Your task to perform on an android device: View the shopping cart on ebay.com. Add "alienware aurora" to the cart on ebay.com, then select checkout. Image 0: 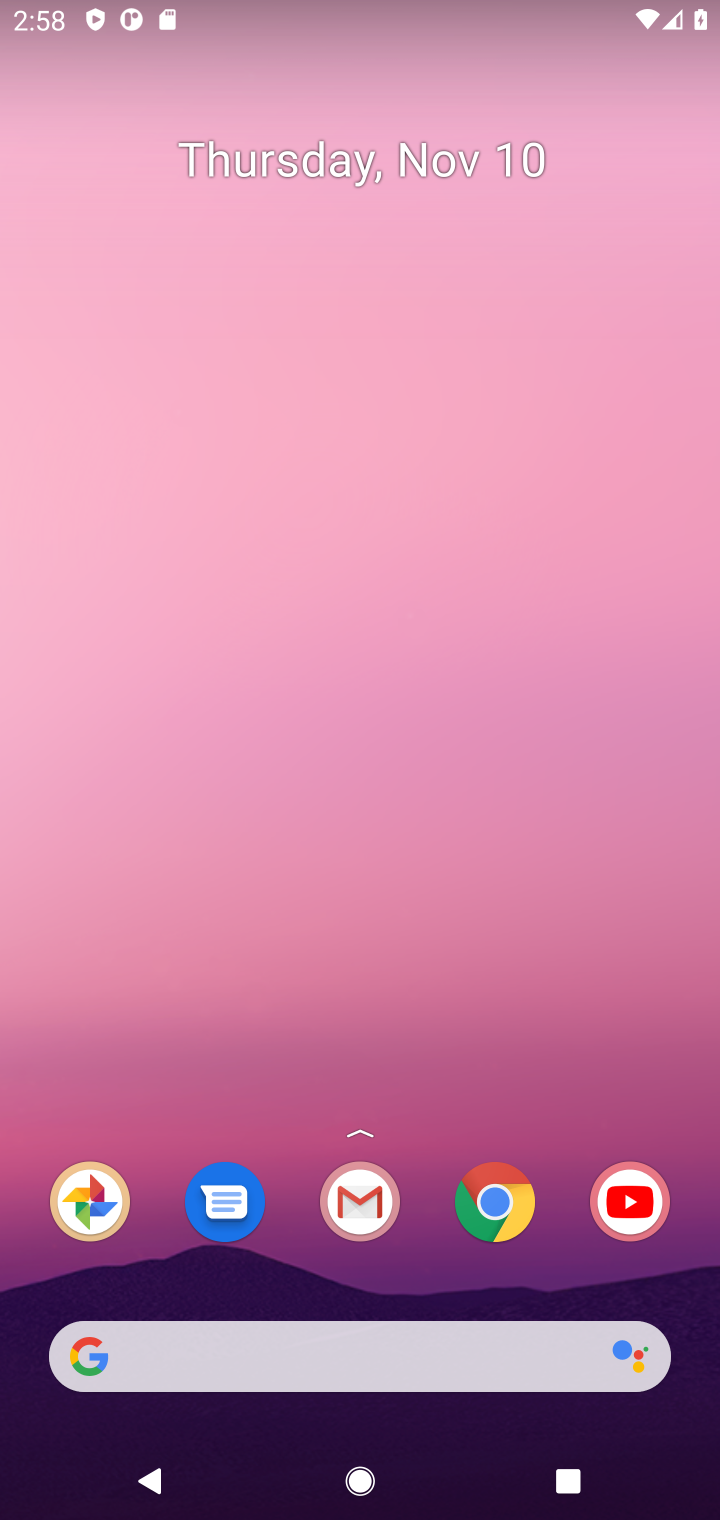
Step 0: press home button
Your task to perform on an android device: View the shopping cart on ebay.com. Add "alienware aurora" to the cart on ebay.com, then select checkout. Image 1: 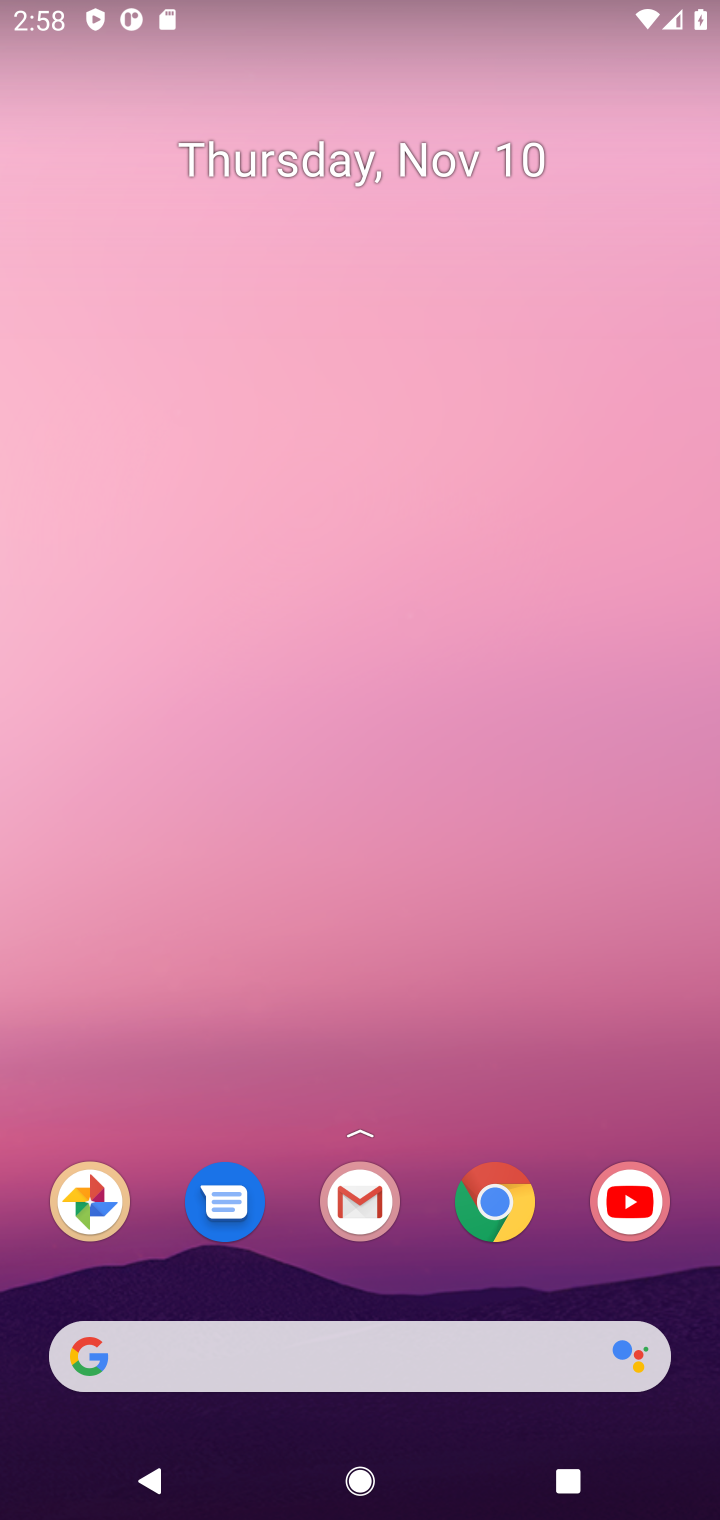
Step 1: click (492, 1193)
Your task to perform on an android device: View the shopping cart on ebay.com. Add "alienware aurora" to the cart on ebay.com, then select checkout. Image 2: 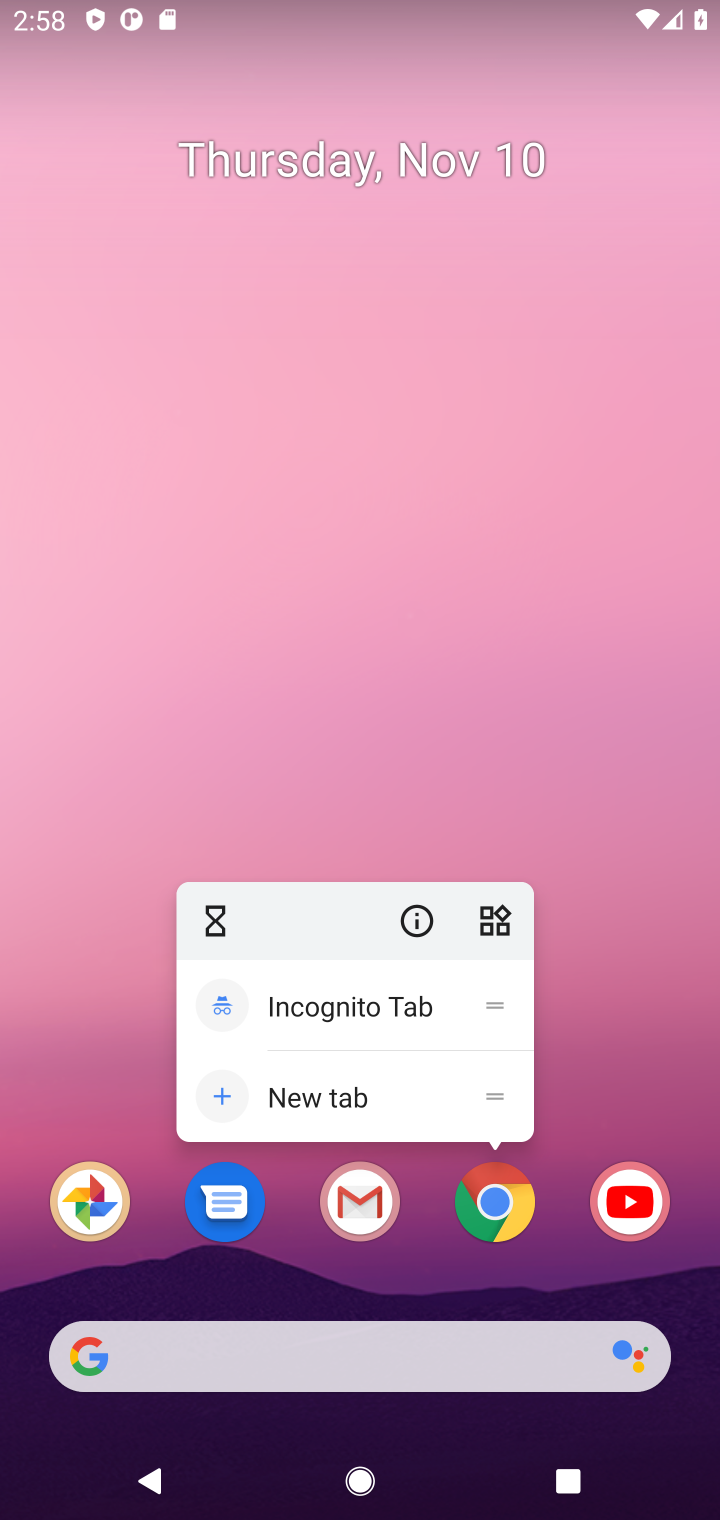
Step 2: click (497, 1212)
Your task to perform on an android device: View the shopping cart on ebay.com. Add "alienware aurora" to the cart on ebay.com, then select checkout. Image 3: 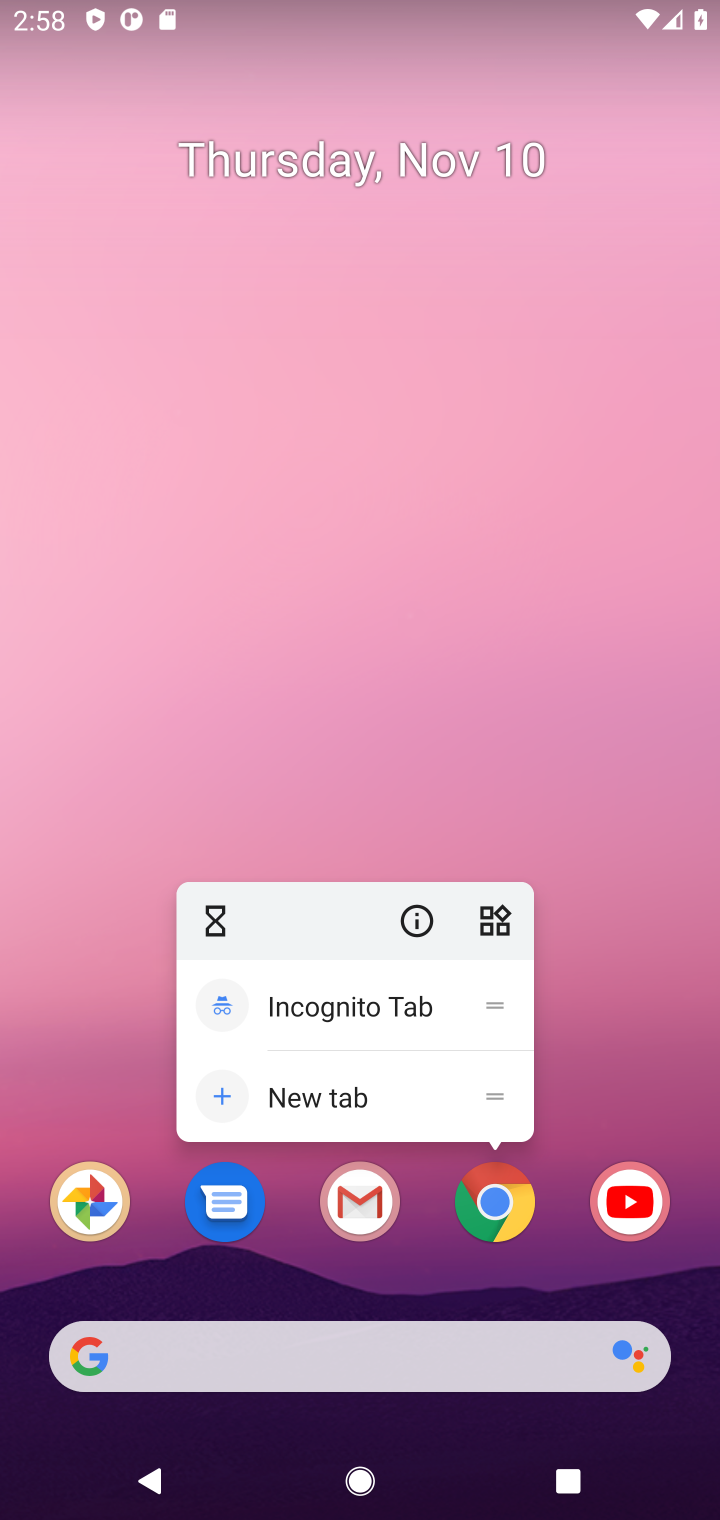
Step 3: click (497, 1212)
Your task to perform on an android device: View the shopping cart on ebay.com. Add "alienware aurora" to the cart on ebay.com, then select checkout. Image 4: 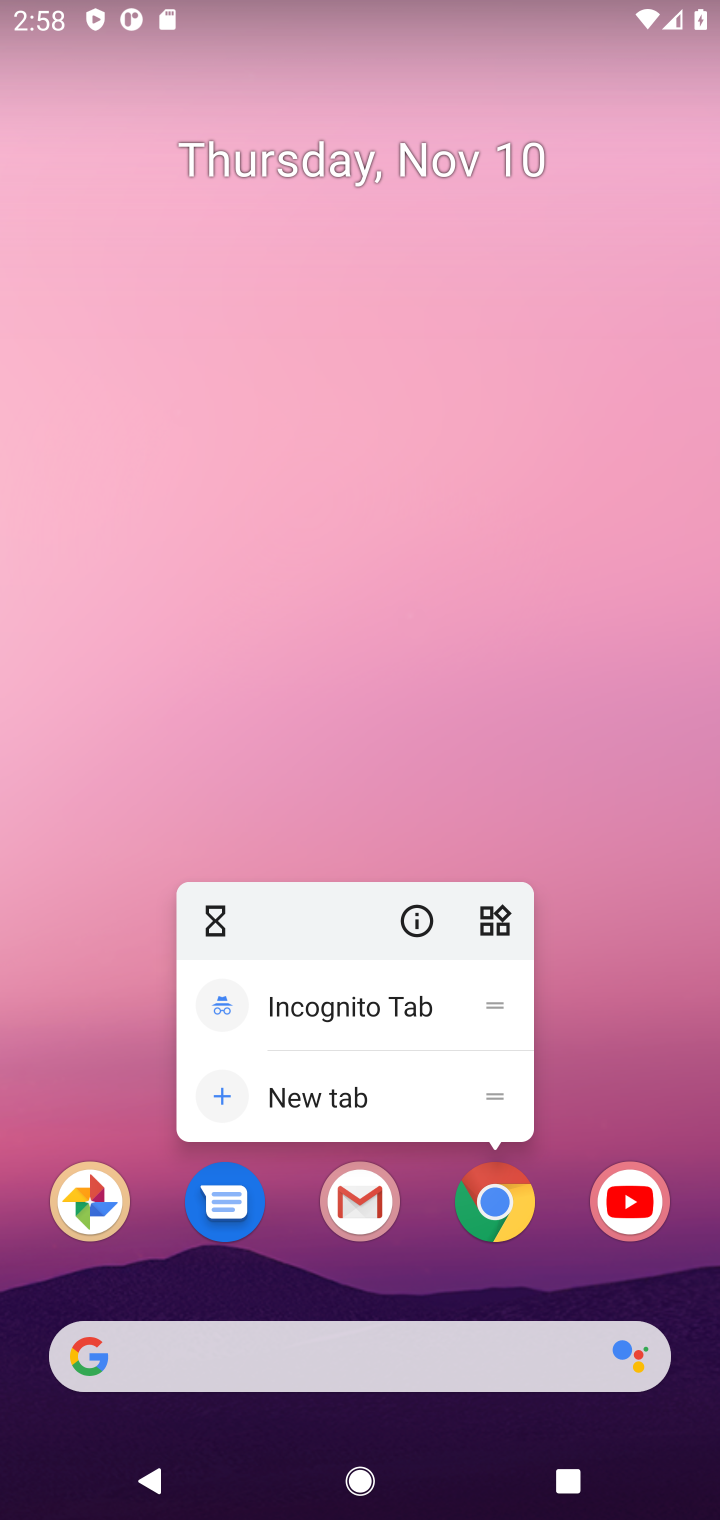
Step 4: click (497, 1212)
Your task to perform on an android device: View the shopping cart on ebay.com. Add "alienware aurora" to the cart on ebay.com, then select checkout. Image 5: 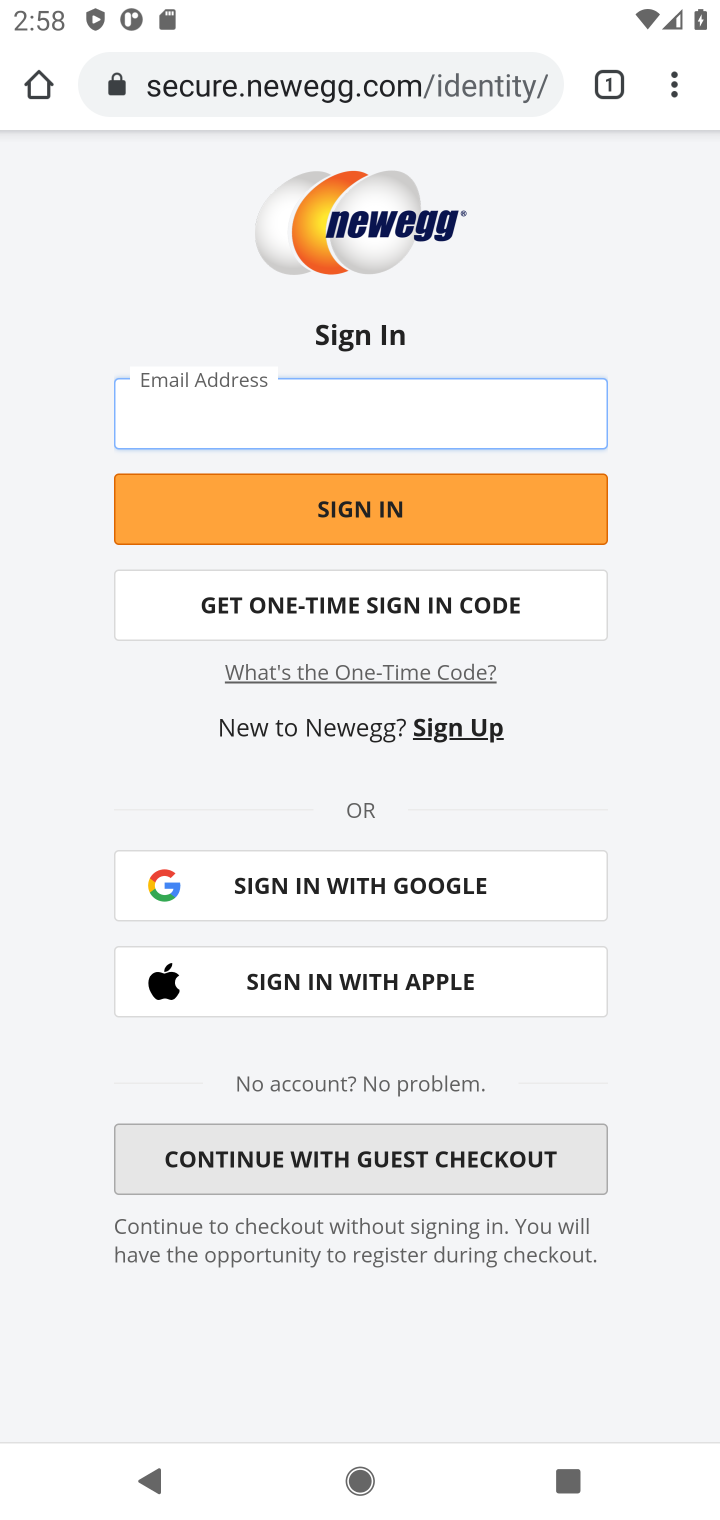
Step 5: click (372, 82)
Your task to perform on an android device: View the shopping cart on ebay.com. Add "alienware aurora" to the cart on ebay.com, then select checkout. Image 6: 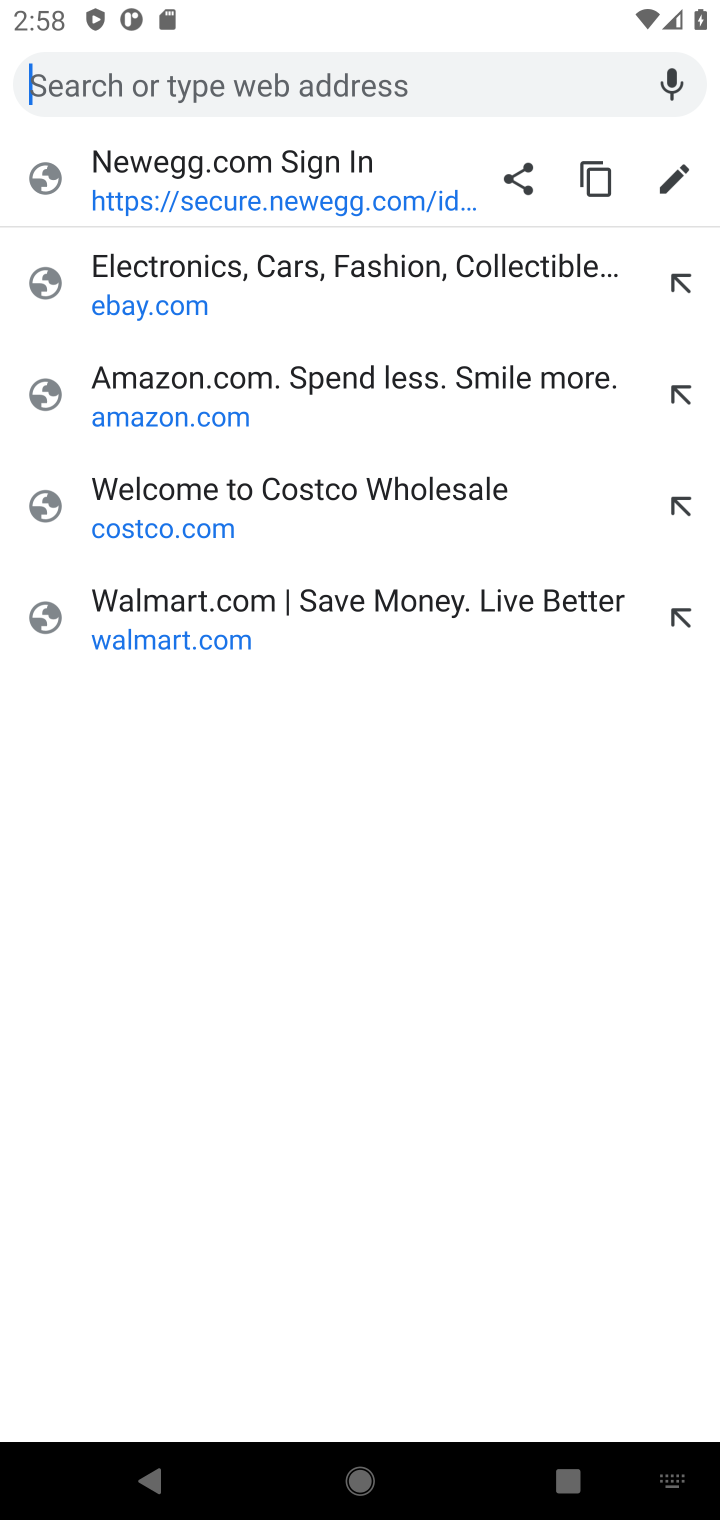
Step 6: click (246, 253)
Your task to perform on an android device: View the shopping cart on ebay.com. Add "alienware aurora" to the cart on ebay.com, then select checkout. Image 7: 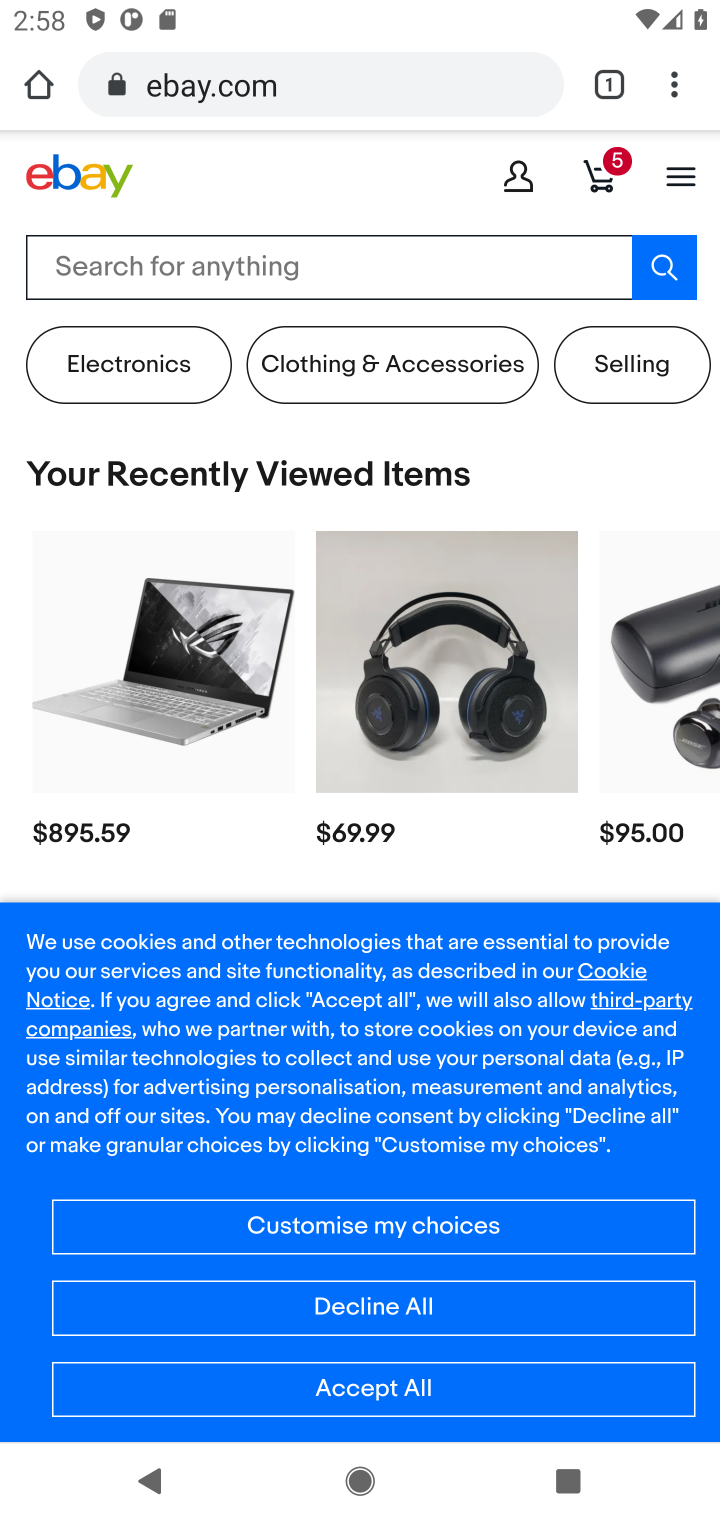
Step 7: click (359, 255)
Your task to perform on an android device: View the shopping cart on ebay.com. Add "alienware aurora" to the cart on ebay.com, then select checkout. Image 8: 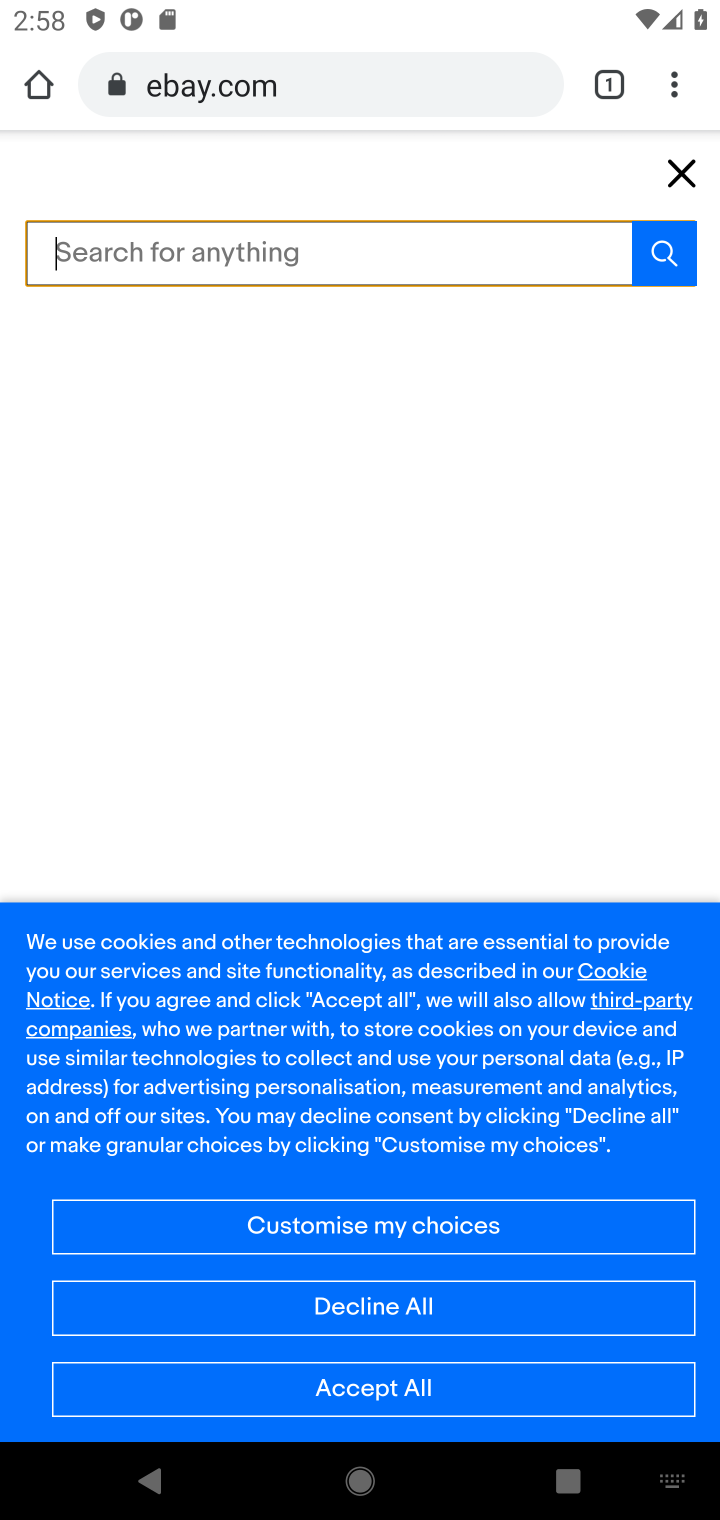
Step 8: type "alienware aurora"
Your task to perform on an android device: View the shopping cart on ebay.com. Add "alienware aurora" to the cart on ebay.com, then select checkout. Image 9: 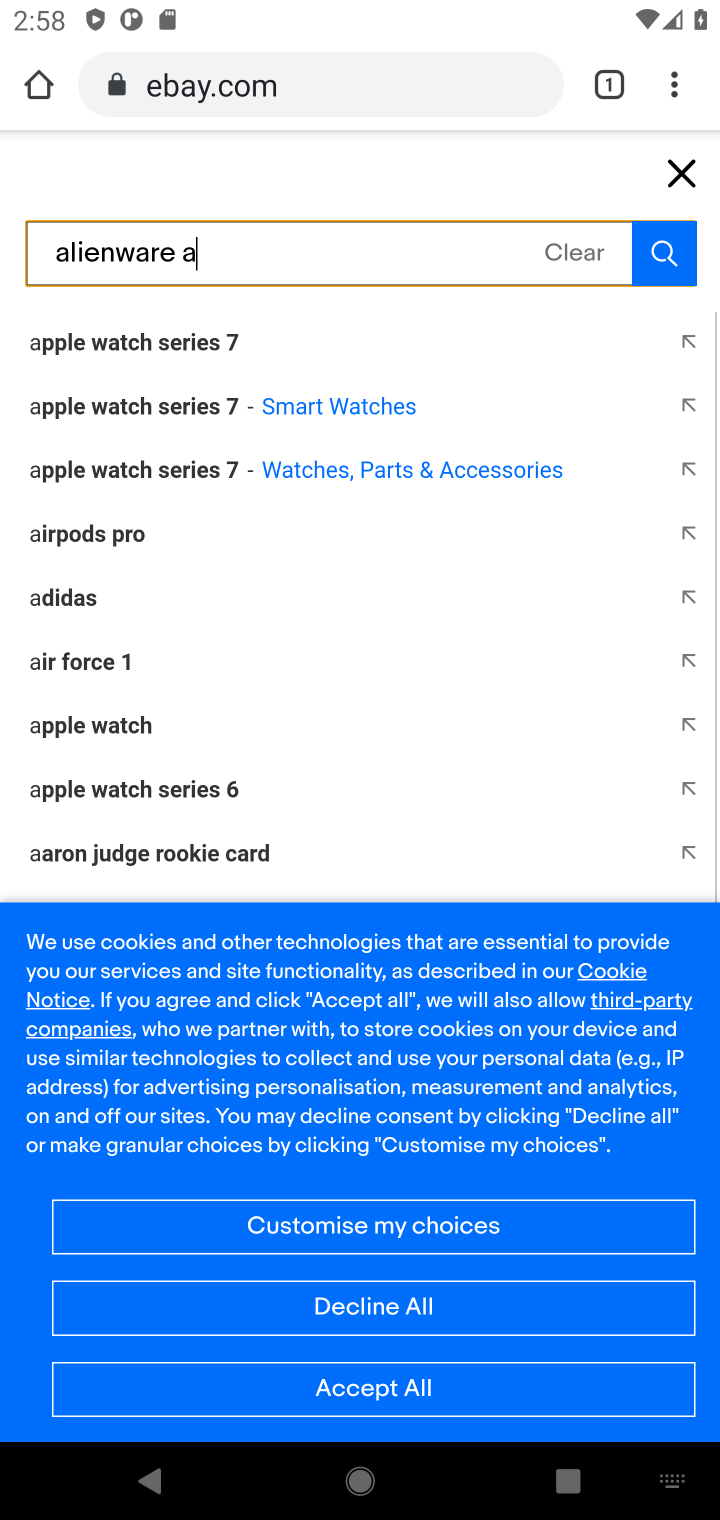
Step 9: press enter
Your task to perform on an android device: View the shopping cart on ebay.com. Add "alienware aurora" to the cart on ebay.com, then select checkout. Image 10: 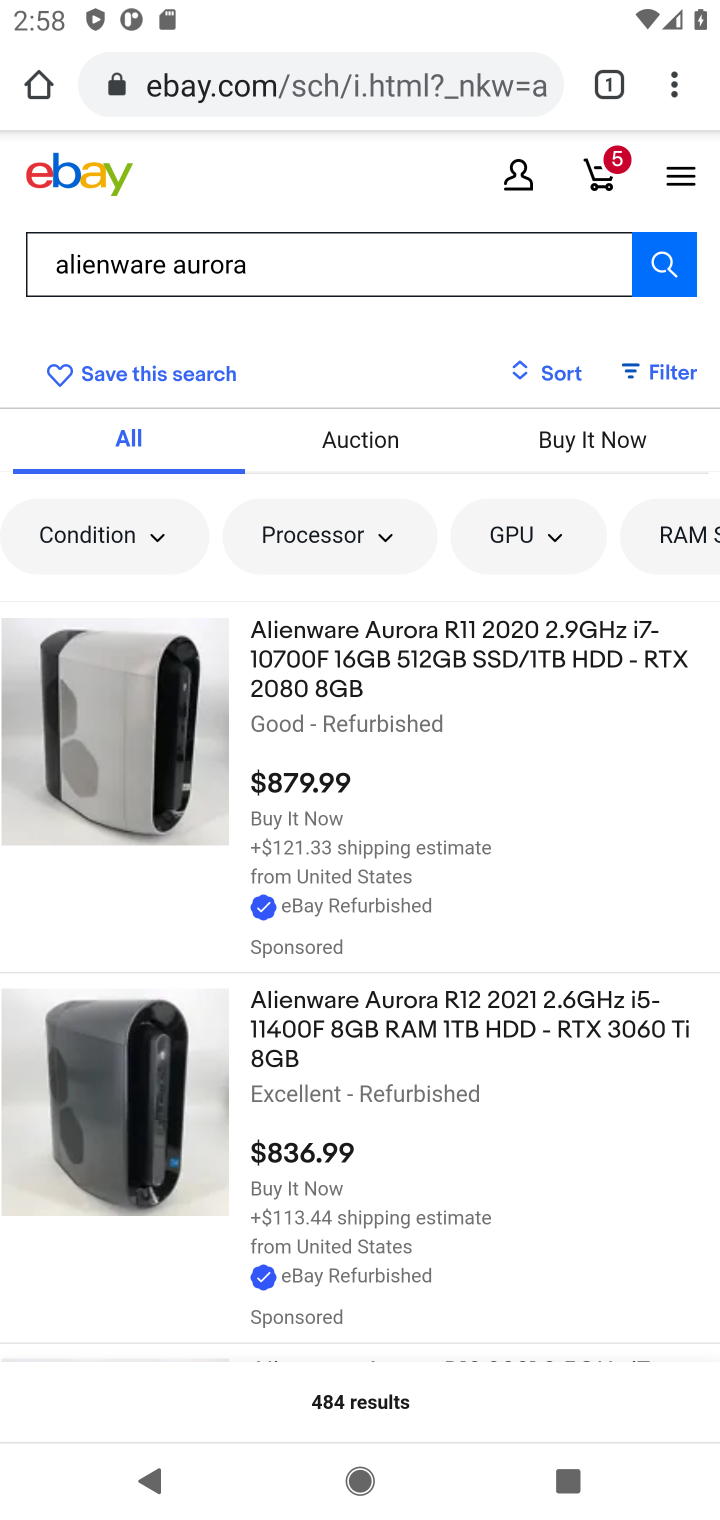
Step 10: click (119, 708)
Your task to perform on an android device: View the shopping cart on ebay.com. Add "alienware aurora" to the cart on ebay.com, then select checkout. Image 11: 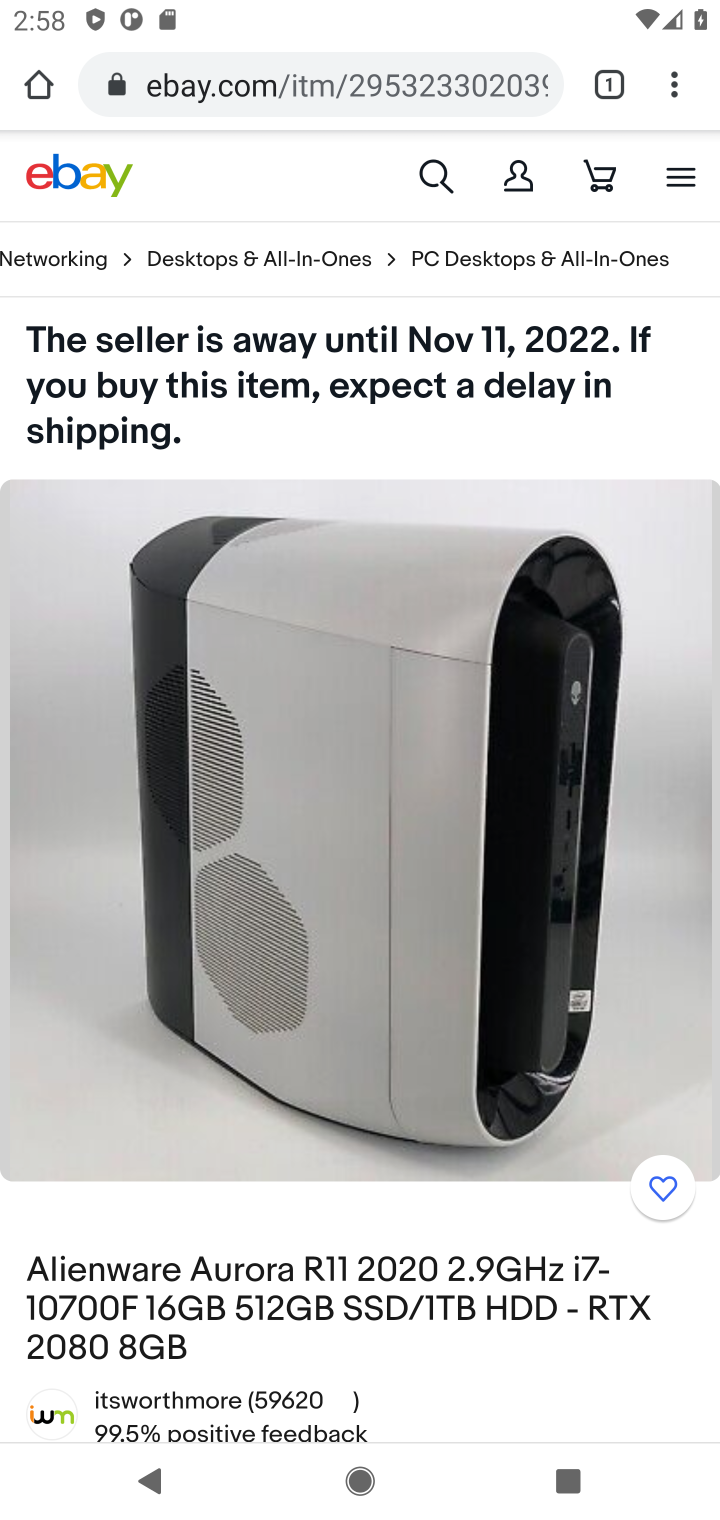
Step 11: drag from (482, 1305) to (466, 491)
Your task to perform on an android device: View the shopping cart on ebay.com. Add "alienware aurora" to the cart on ebay.com, then select checkout. Image 12: 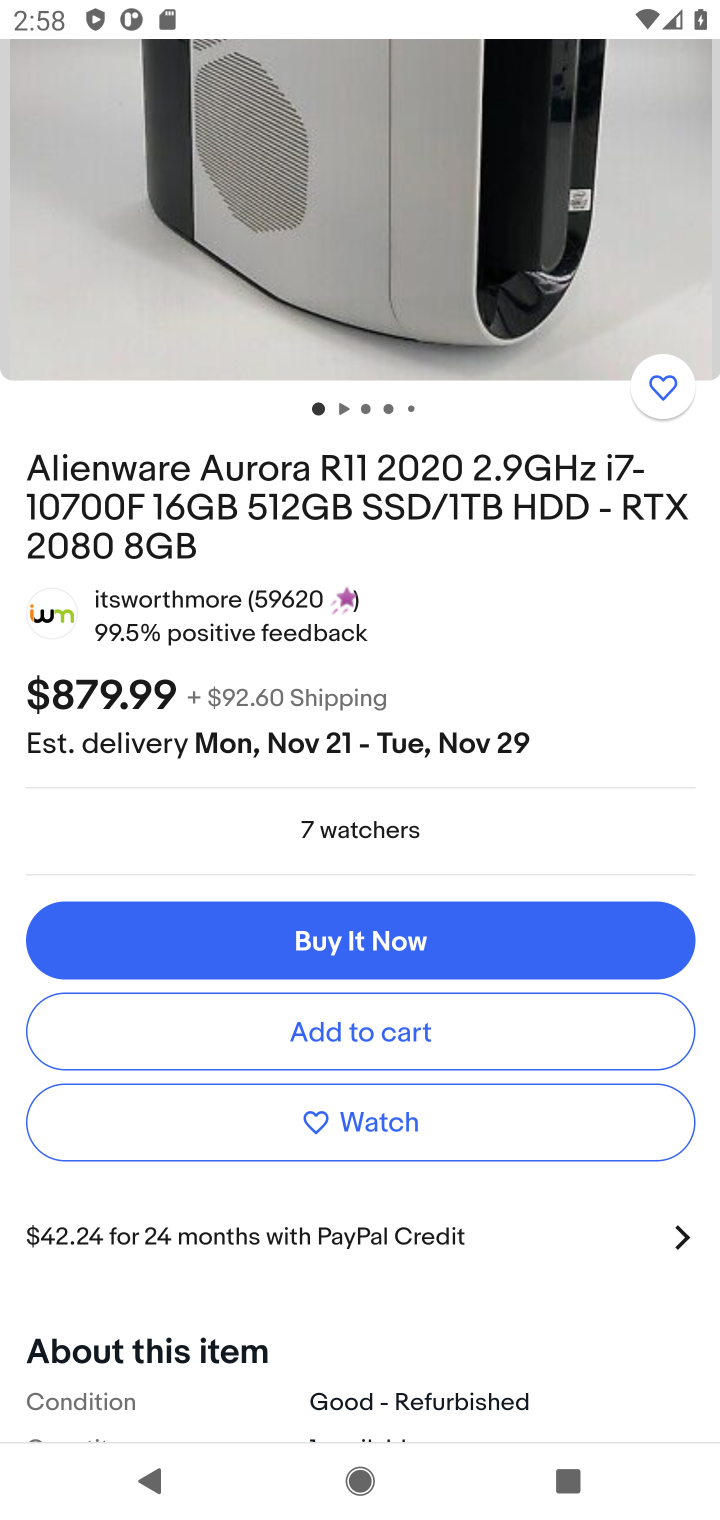
Step 12: click (348, 1036)
Your task to perform on an android device: View the shopping cart on ebay.com. Add "alienware aurora" to the cart on ebay.com, then select checkout. Image 13: 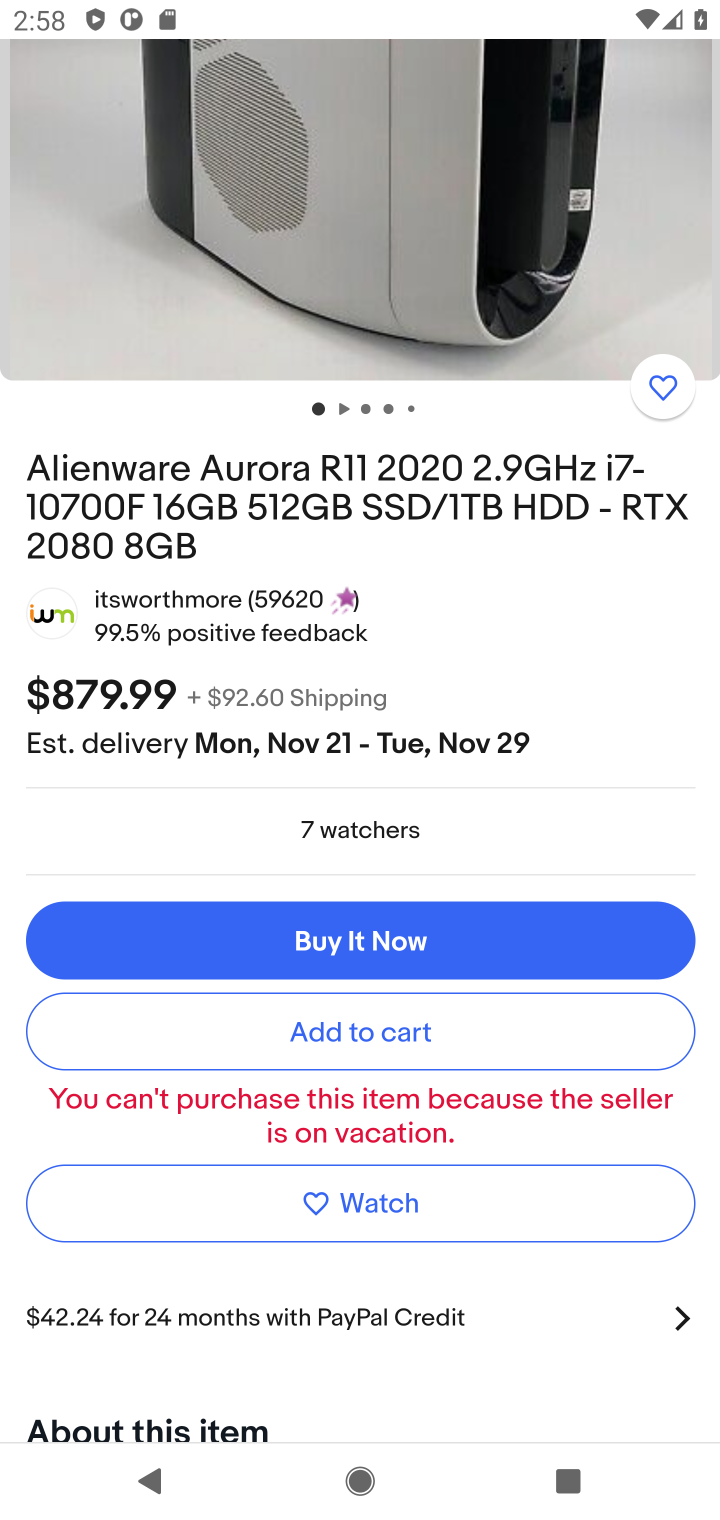
Step 13: press back button
Your task to perform on an android device: View the shopping cart on ebay.com. Add "alienware aurora" to the cart on ebay.com, then select checkout. Image 14: 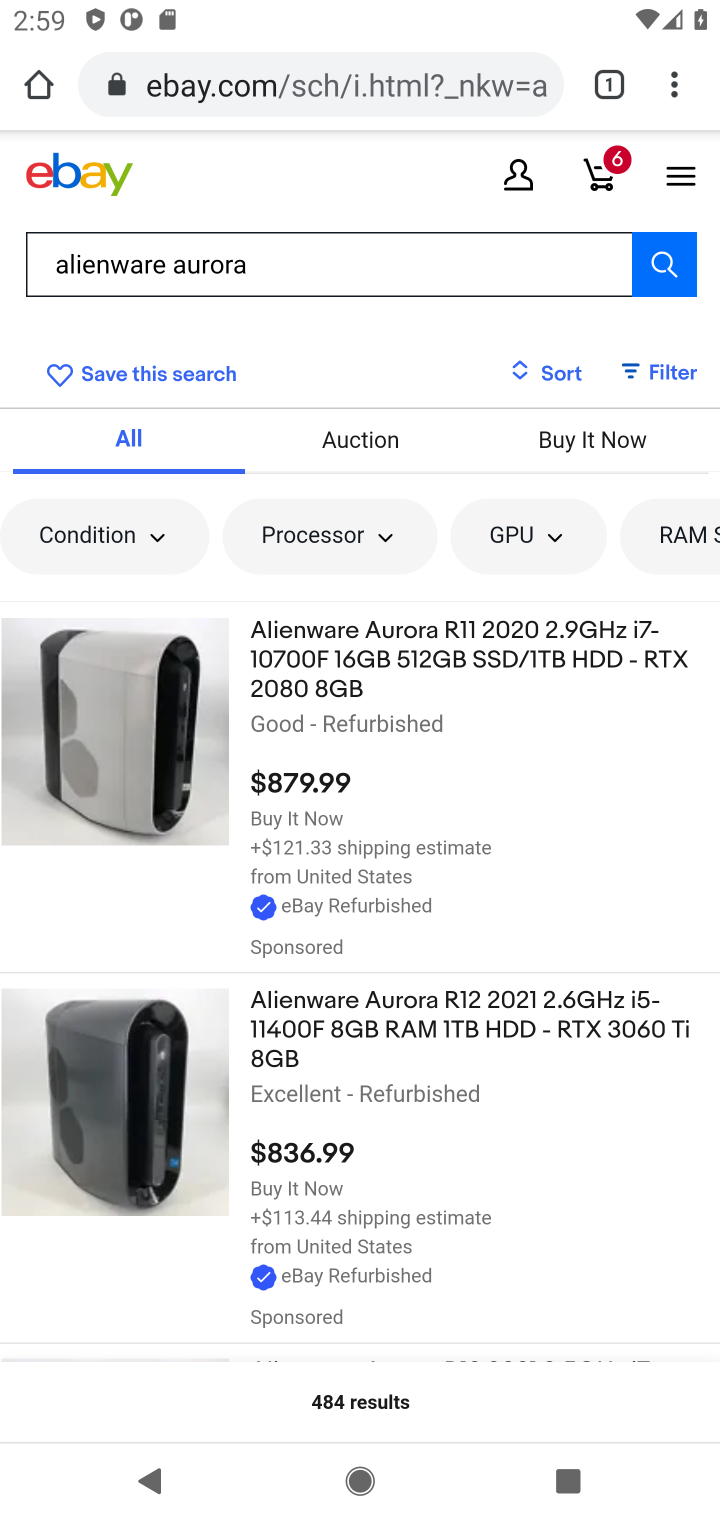
Step 14: click (83, 1056)
Your task to perform on an android device: View the shopping cart on ebay.com. Add "alienware aurora" to the cart on ebay.com, then select checkout. Image 15: 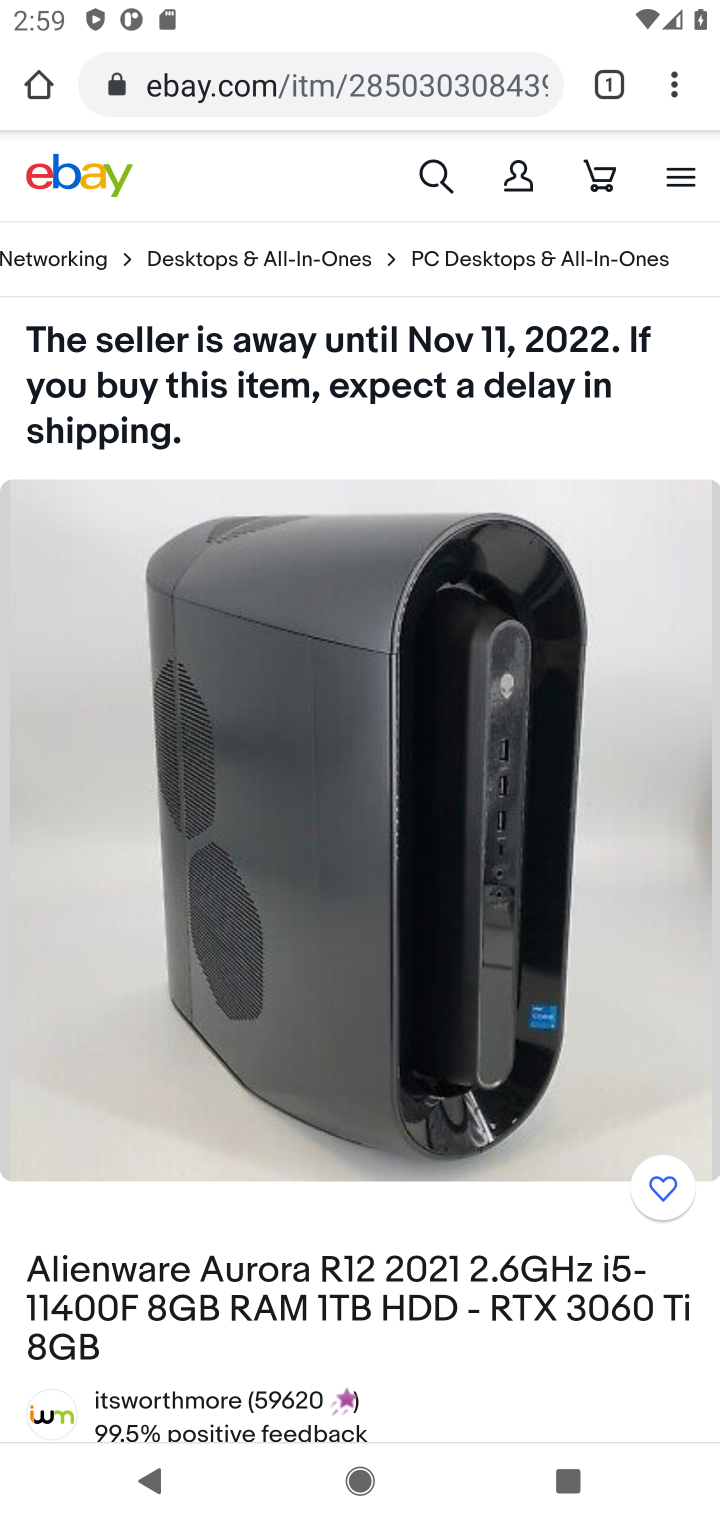
Step 15: drag from (478, 1137) to (384, 406)
Your task to perform on an android device: View the shopping cart on ebay.com. Add "alienware aurora" to the cart on ebay.com, then select checkout. Image 16: 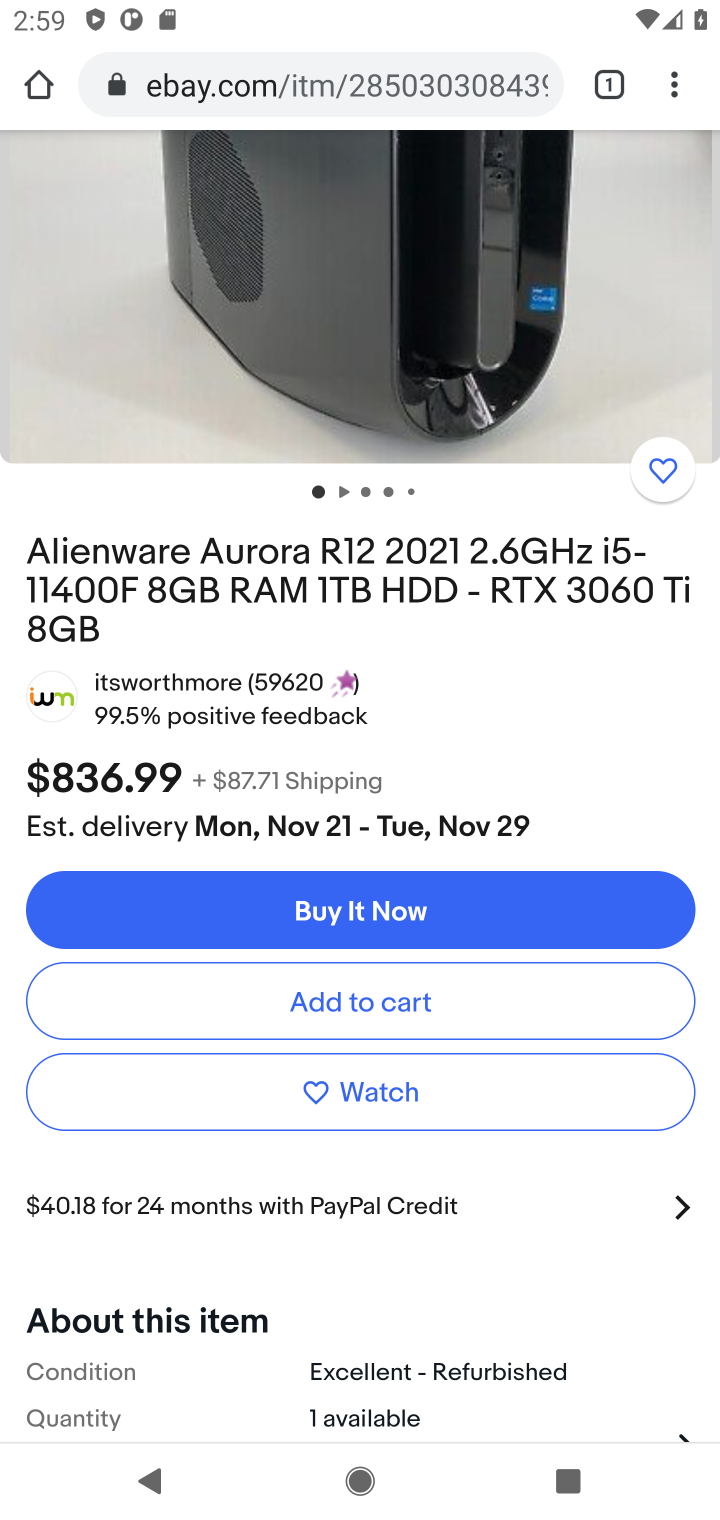
Step 16: click (384, 997)
Your task to perform on an android device: View the shopping cart on ebay.com. Add "alienware aurora" to the cart on ebay.com, then select checkout. Image 17: 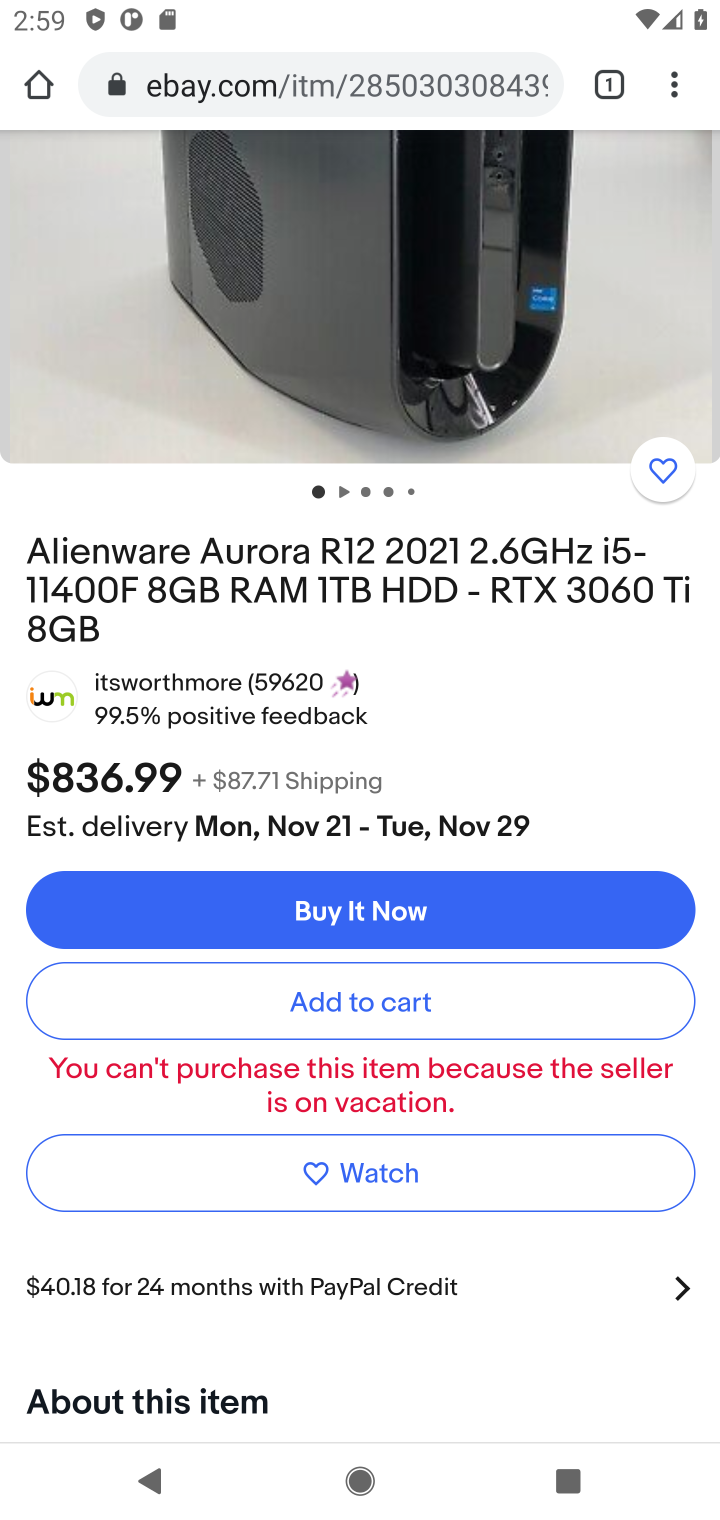
Step 17: press back button
Your task to perform on an android device: View the shopping cart on ebay.com. Add "alienware aurora" to the cart on ebay.com, then select checkout. Image 18: 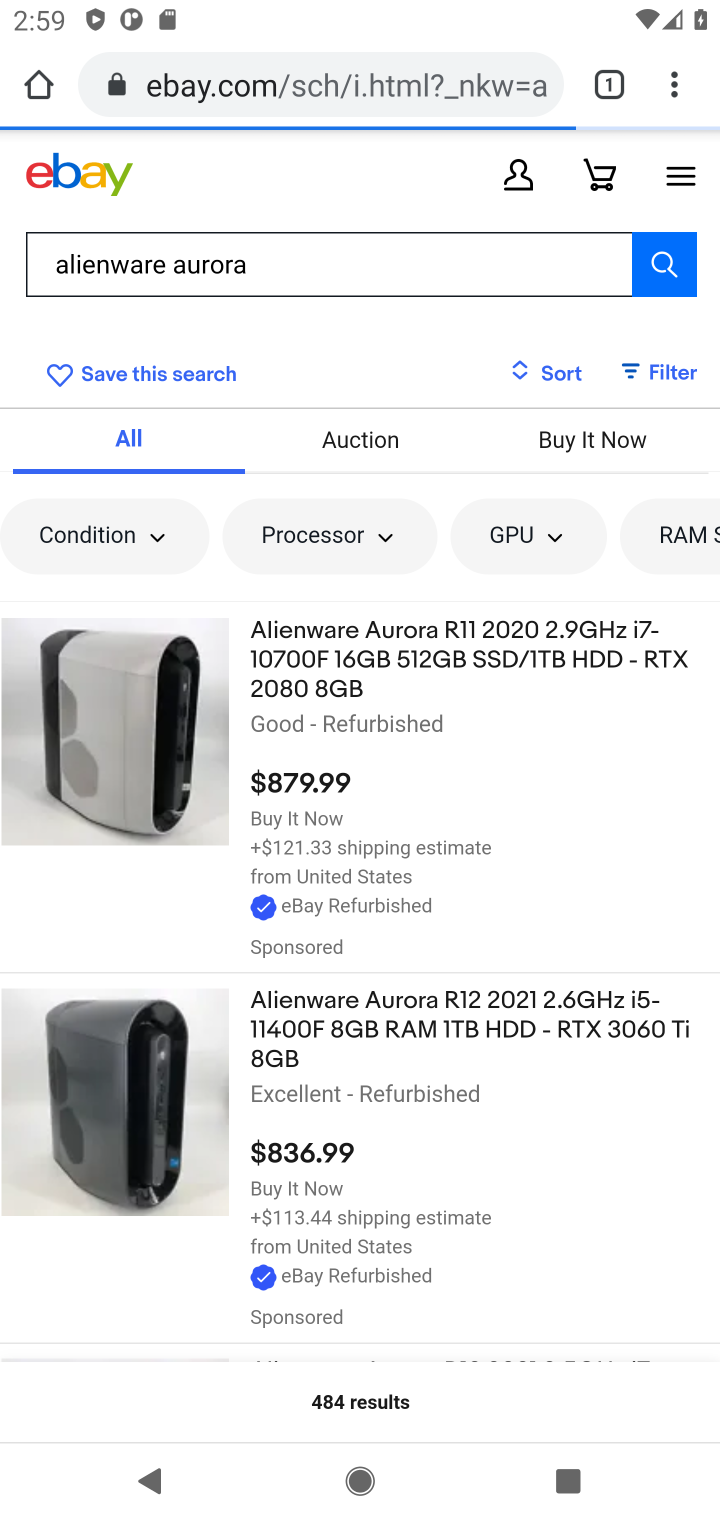
Step 18: drag from (477, 1118) to (500, 369)
Your task to perform on an android device: View the shopping cart on ebay.com. Add "alienware aurora" to the cart on ebay.com, then select checkout. Image 19: 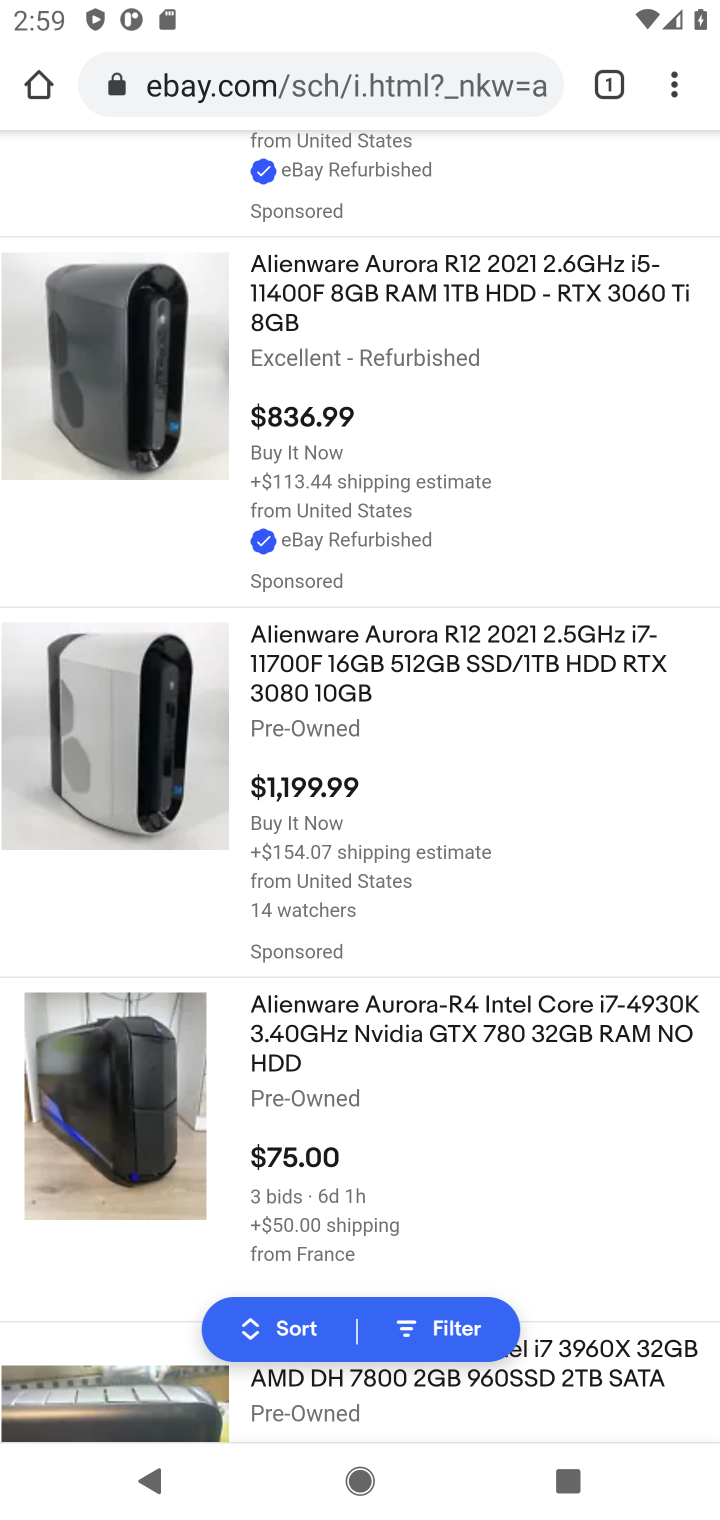
Step 19: click (97, 1124)
Your task to perform on an android device: View the shopping cart on ebay.com. Add "alienware aurora" to the cart on ebay.com, then select checkout. Image 20: 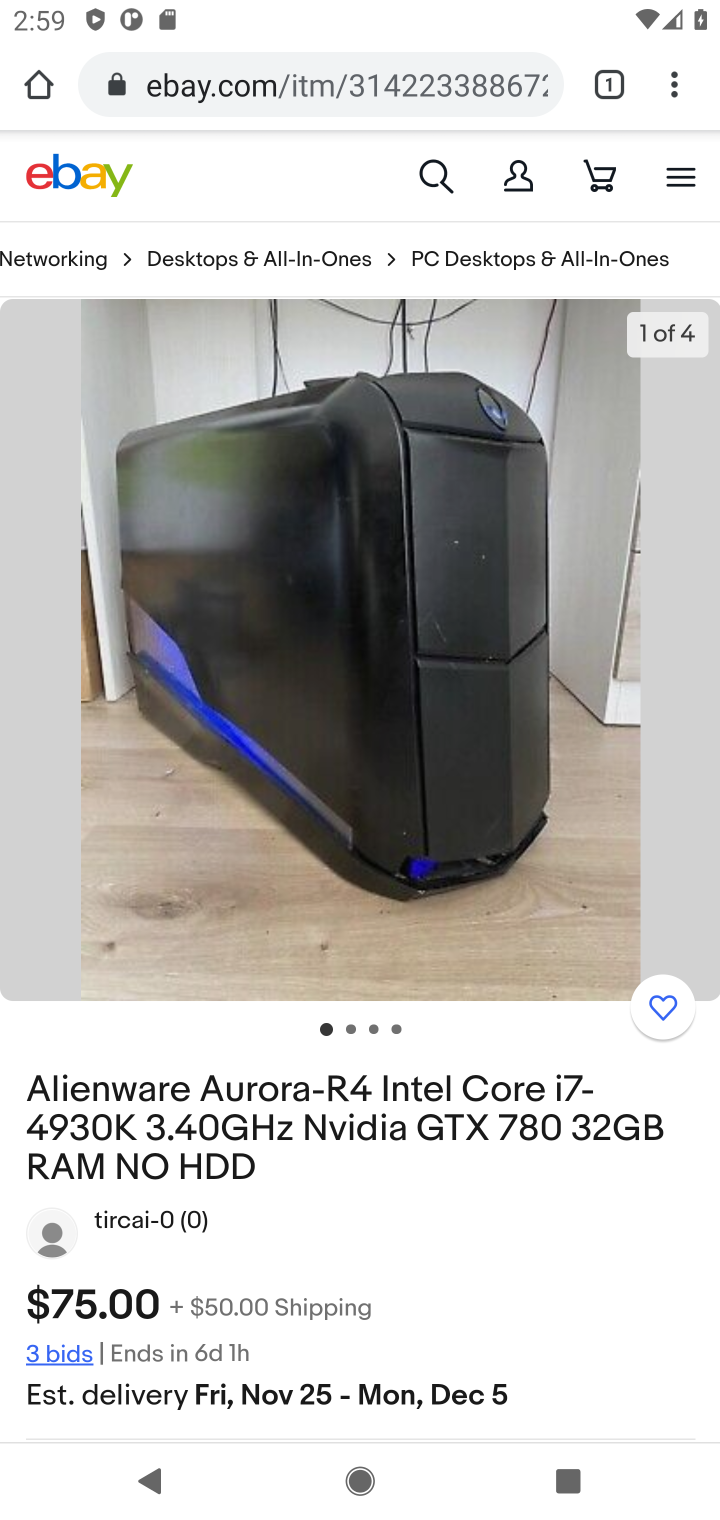
Step 20: drag from (540, 1176) to (597, 426)
Your task to perform on an android device: View the shopping cart on ebay.com. Add "alienware aurora" to the cart on ebay.com, then select checkout. Image 21: 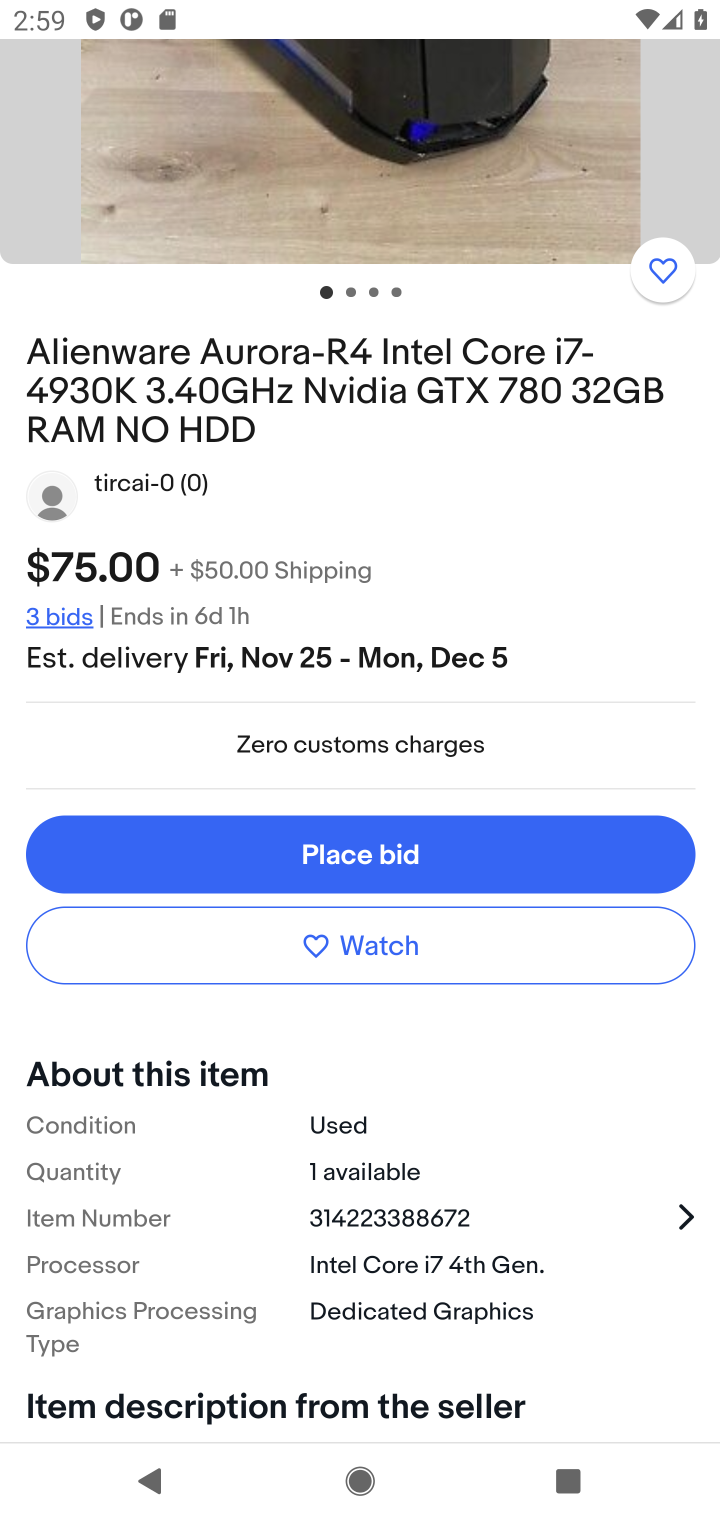
Step 21: press back button
Your task to perform on an android device: View the shopping cart on ebay.com. Add "alienware aurora" to the cart on ebay.com, then select checkout. Image 22: 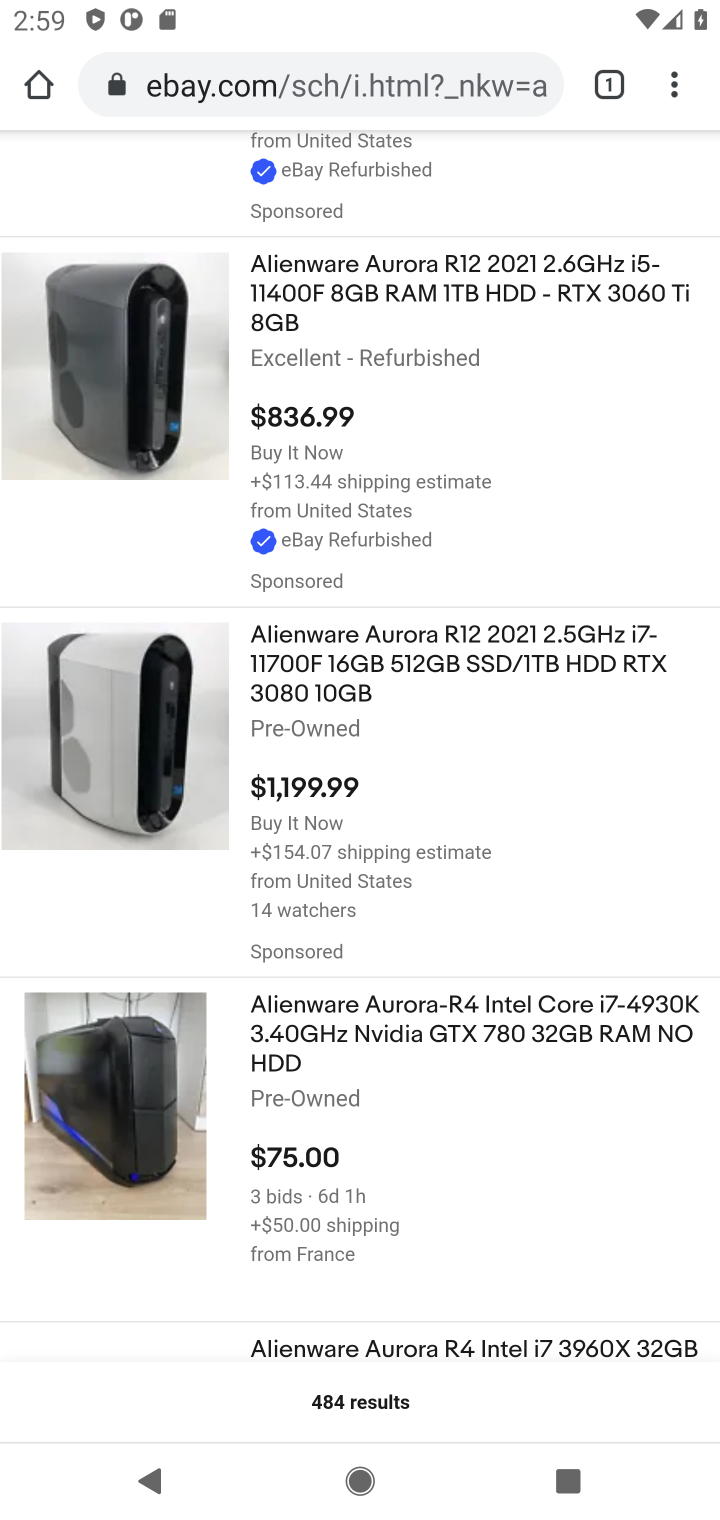
Step 22: drag from (516, 1142) to (519, 453)
Your task to perform on an android device: View the shopping cart on ebay.com. Add "alienware aurora" to the cart on ebay.com, then select checkout. Image 23: 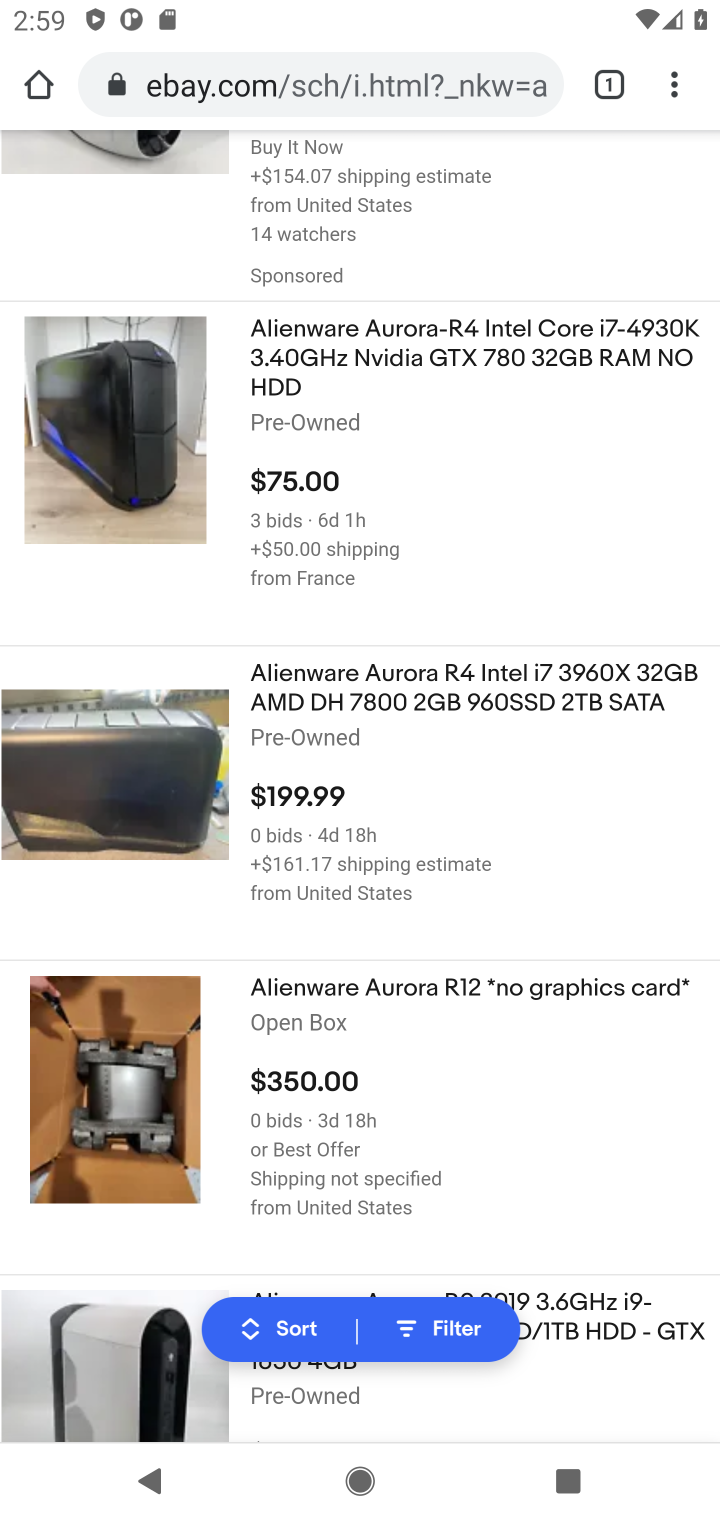
Step 23: click (104, 785)
Your task to perform on an android device: View the shopping cart on ebay.com. Add "alienware aurora" to the cart on ebay.com, then select checkout. Image 24: 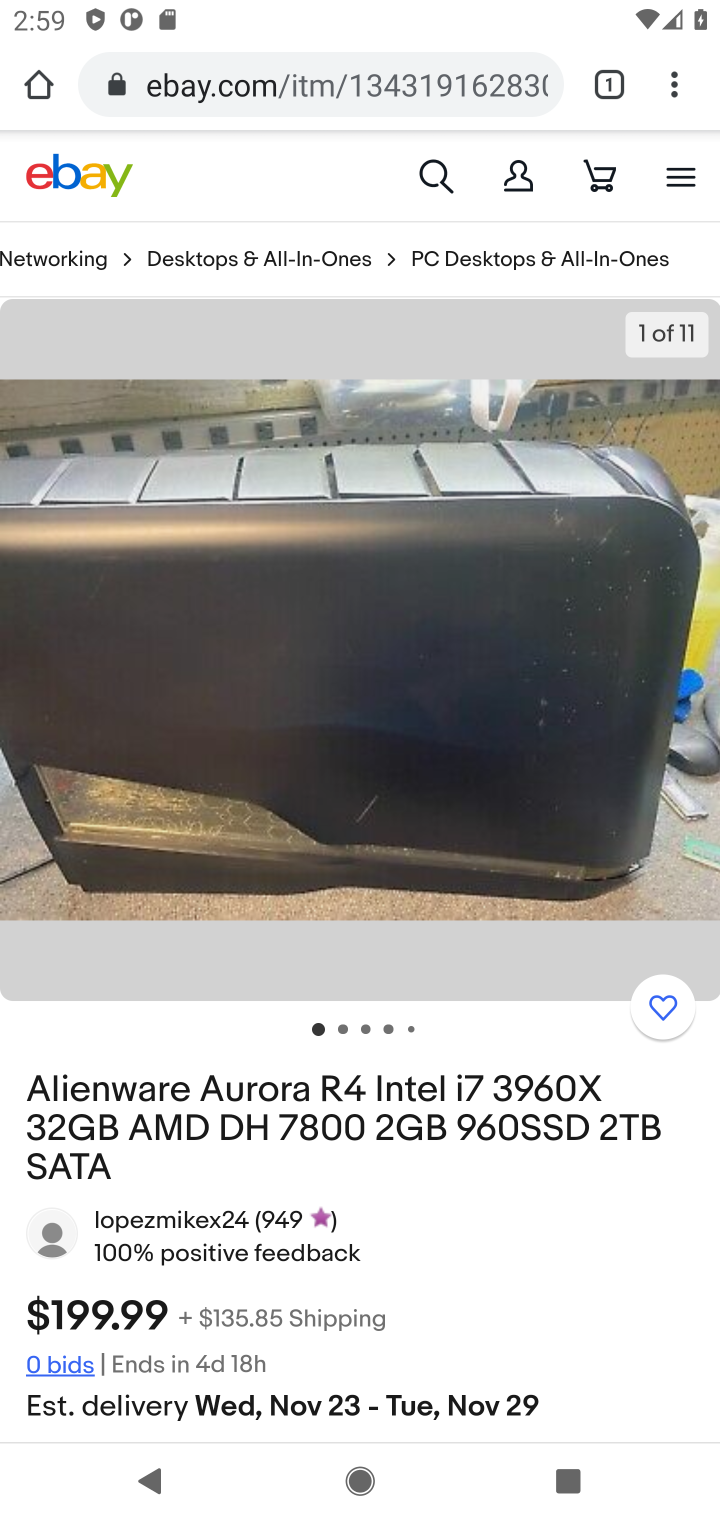
Step 24: task complete